Your task to perform on an android device: Go to eBay Image 0: 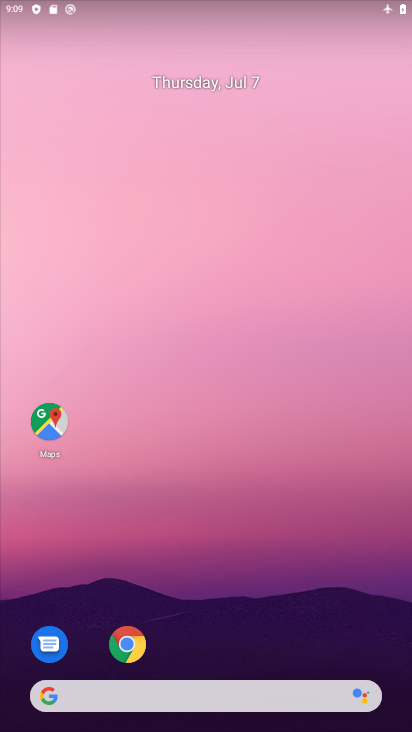
Step 0: drag from (285, 620) to (198, 26)
Your task to perform on an android device: Go to eBay Image 1: 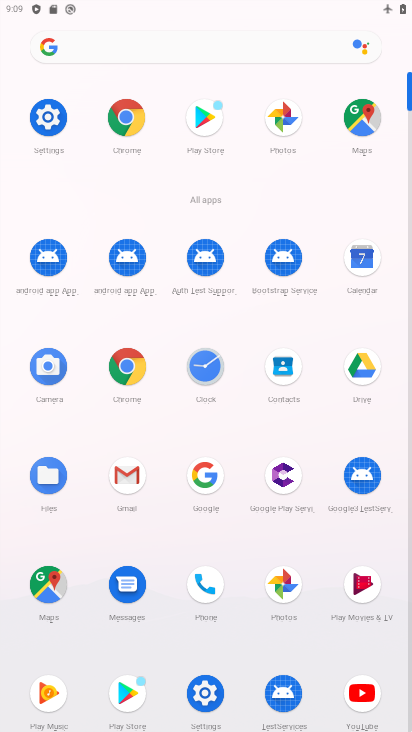
Step 1: click (124, 112)
Your task to perform on an android device: Go to eBay Image 2: 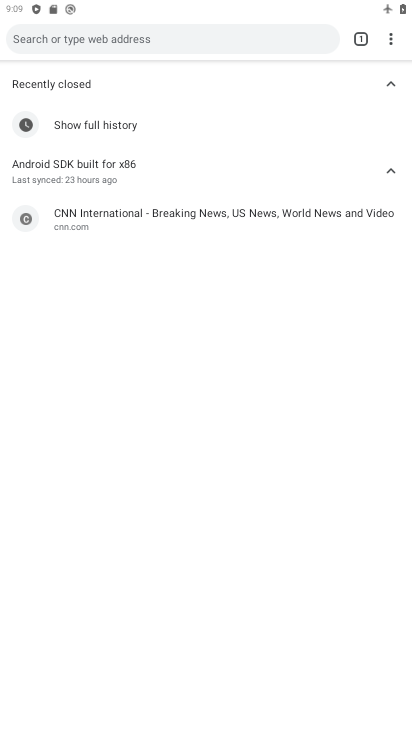
Step 2: click (183, 31)
Your task to perform on an android device: Go to eBay Image 3: 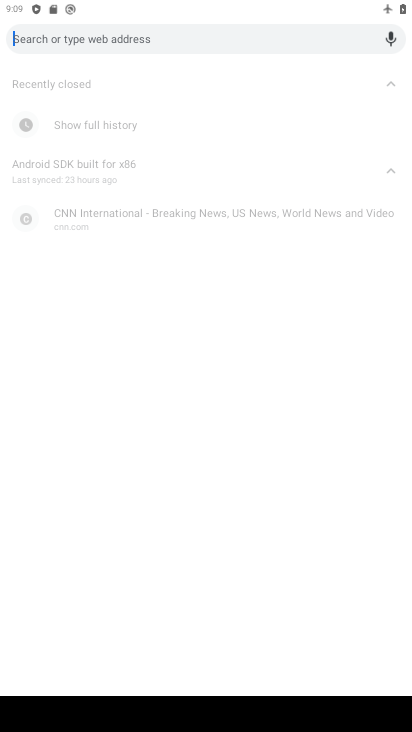
Step 3: type "ebay"
Your task to perform on an android device: Go to eBay Image 4: 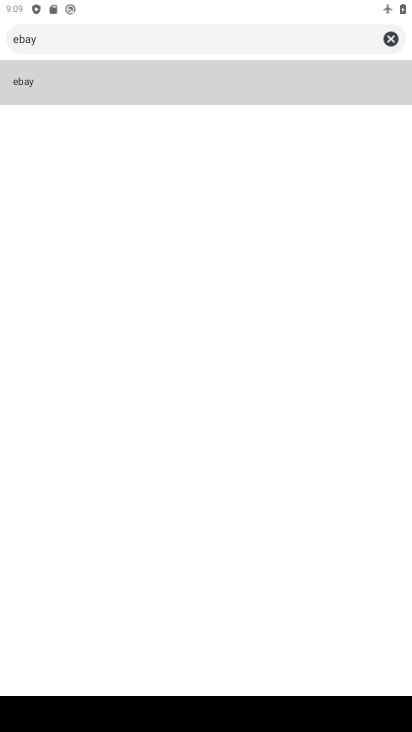
Step 4: click (17, 77)
Your task to perform on an android device: Go to eBay Image 5: 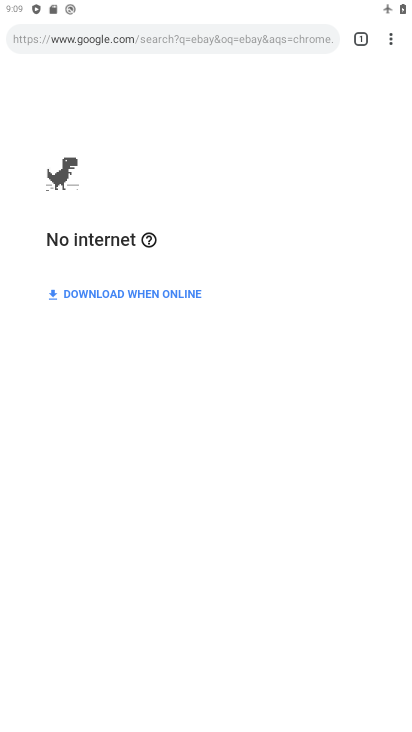
Step 5: task complete